Your task to perform on an android device: open the mobile data screen to see how much data has been used Image 0: 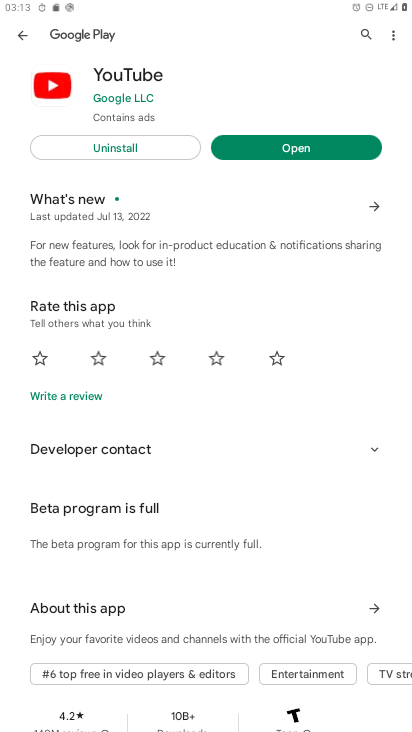
Step 0: press home button
Your task to perform on an android device: open the mobile data screen to see how much data has been used Image 1: 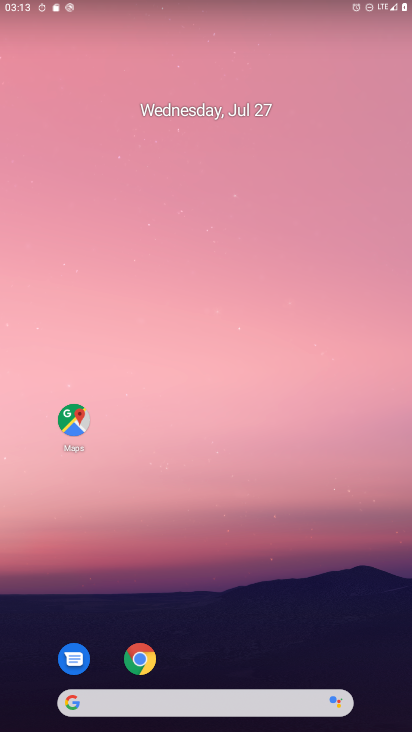
Step 1: drag from (278, 610) to (250, 21)
Your task to perform on an android device: open the mobile data screen to see how much data has been used Image 2: 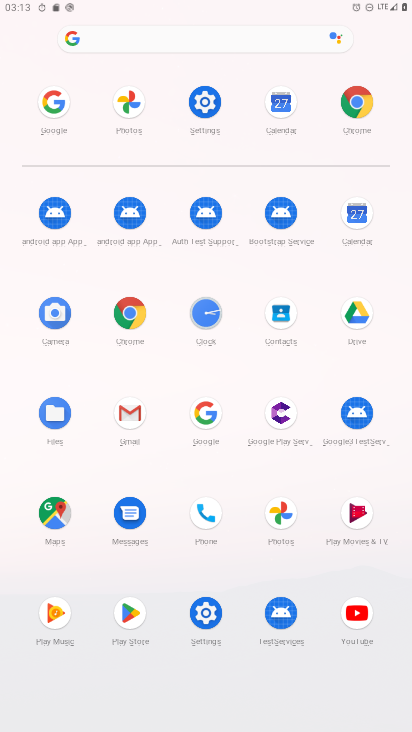
Step 2: click (210, 102)
Your task to perform on an android device: open the mobile data screen to see how much data has been used Image 3: 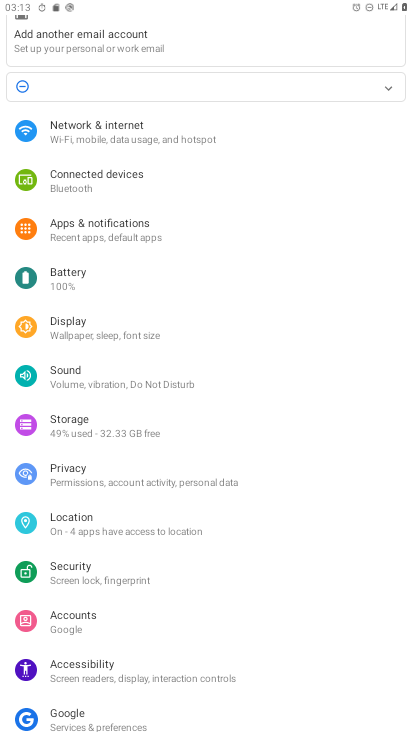
Step 3: click (192, 140)
Your task to perform on an android device: open the mobile data screen to see how much data has been used Image 4: 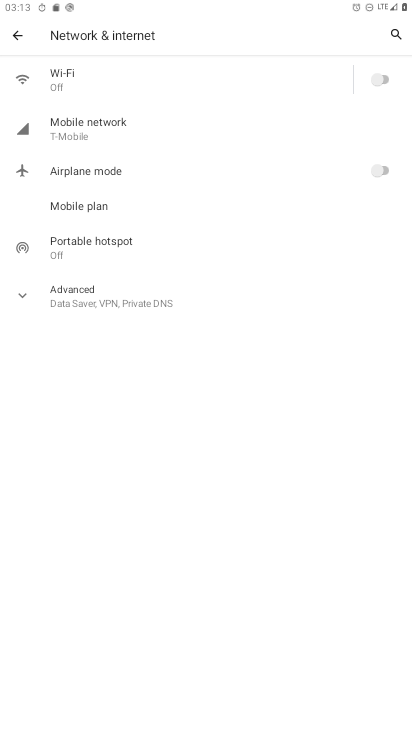
Step 4: click (142, 145)
Your task to perform on an android device: open the mobile data screen to see how much data has been used Image 5: 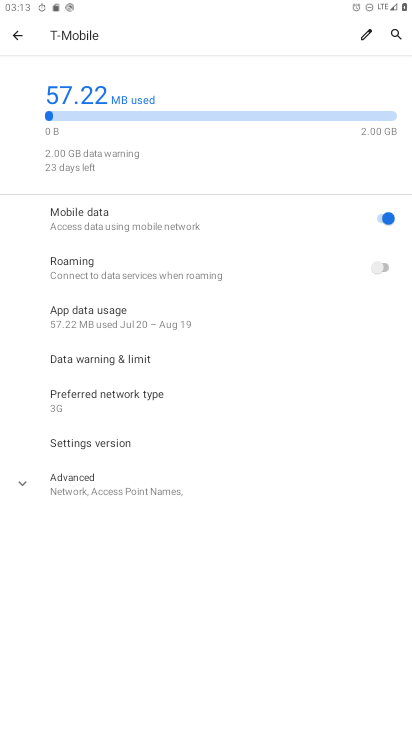
Step 5: task complete